Your task to perform on an android device: turn on the 12-hour format for clock Image 0: 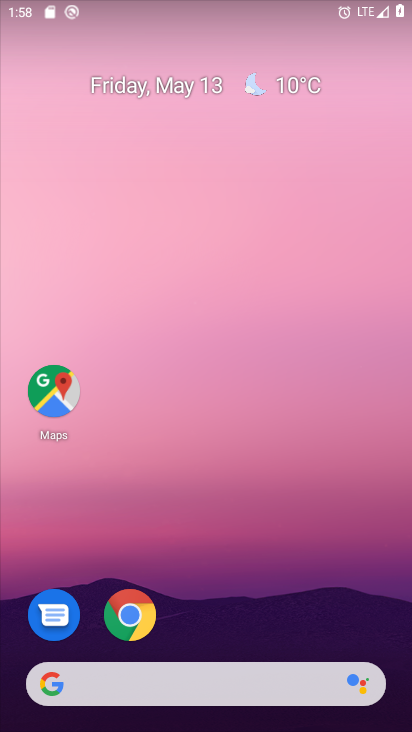
Step 0: drag from (254, 553) to (235, 47)
Your task to perform on an android device: turn on the 12-hour format for clock Image 1: 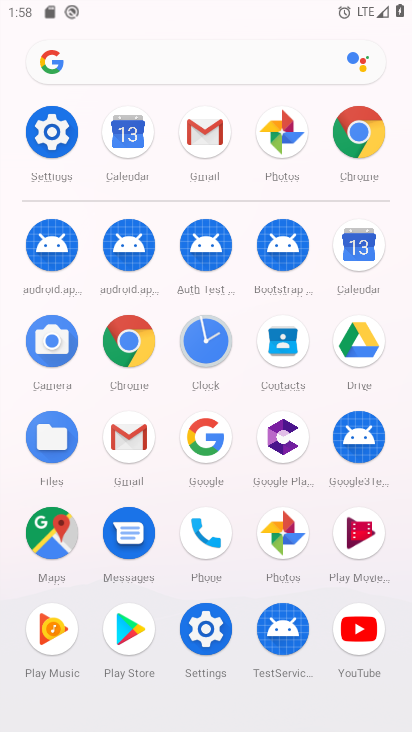
Step 1: click (201, 341)
Your task to perform on an android device: turn on the 12-hour format for clock Image 2: 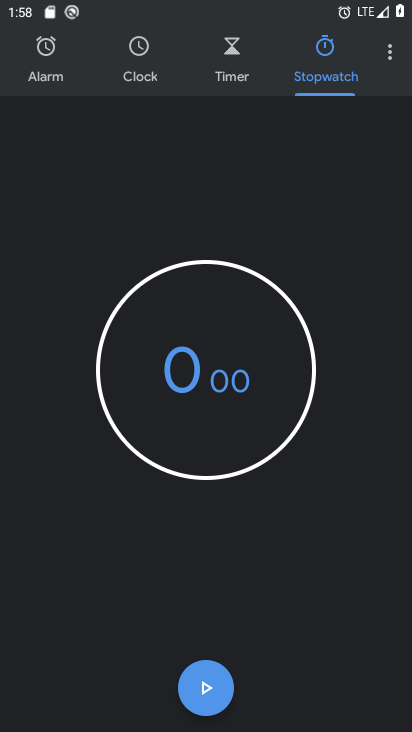
Step 2: click (389, 62)
Your task to perform on an android device: turn on the 12-hour format for clock Image 3: 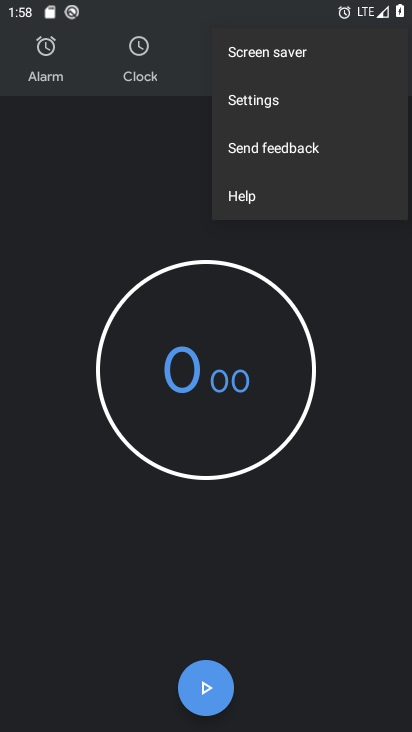
Step 3: click (315, 95)
Your task to perform on an android device: turn on the 12-hour format for clock Image 4: 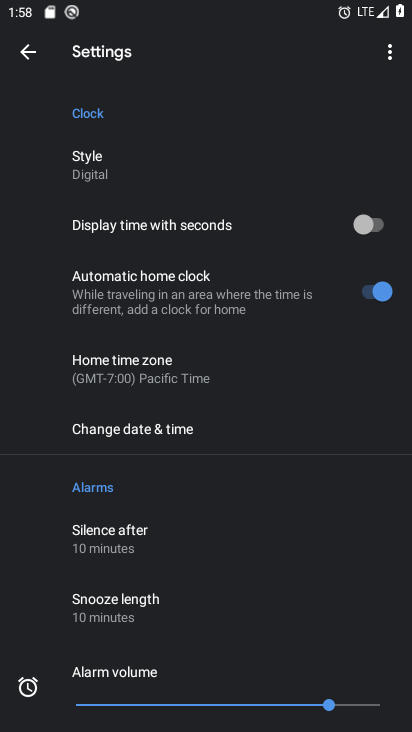
Step 4: click (284, 437)
Your task to perform on an android device: turn on the 12-hour format for clock Image 5: 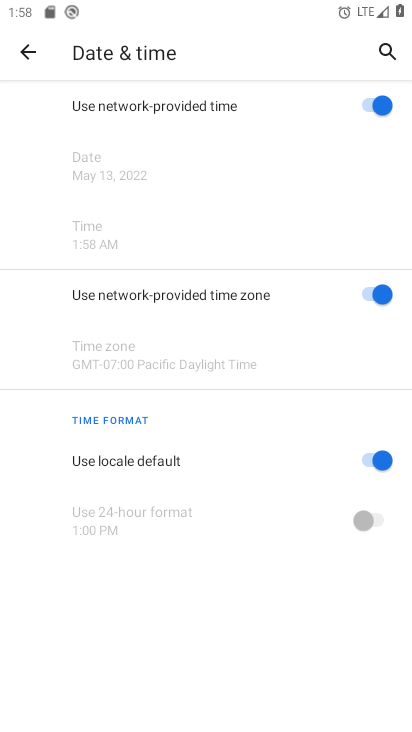
Step 5: task complete